Your task to perform on an android device: Go to display settings Image 0: 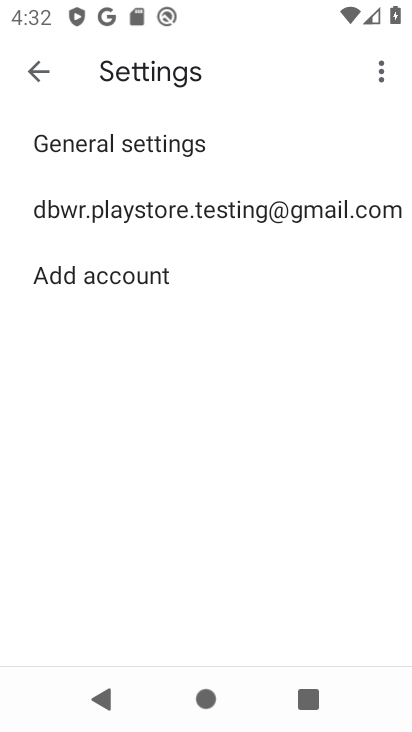
Step 0: press home button
Your task to perform on an android device: Go to display settings Image 1: 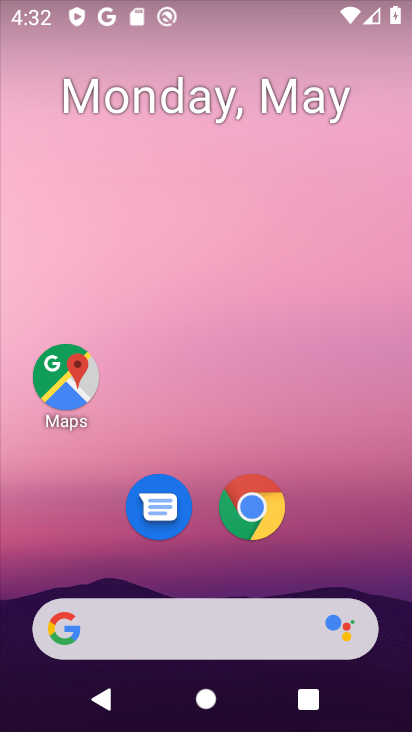
Step 1: drag from (309, 501) to (402, 11)
Your task to perform on an android device: Go to display settings Image 2: 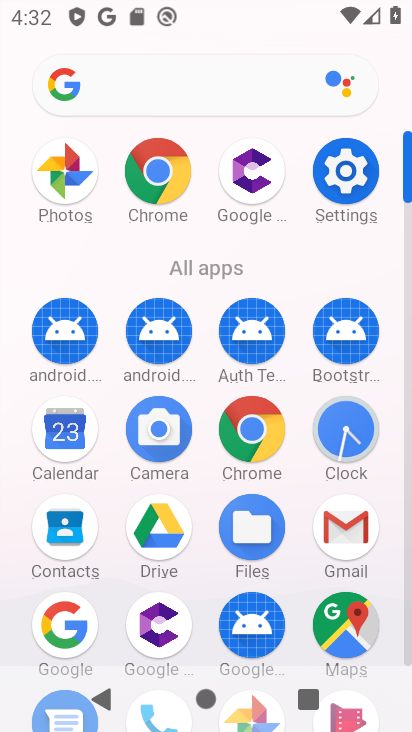
Step 2: click (341, 174)
Your task to perform on an android device: Go to display settings Image 3: 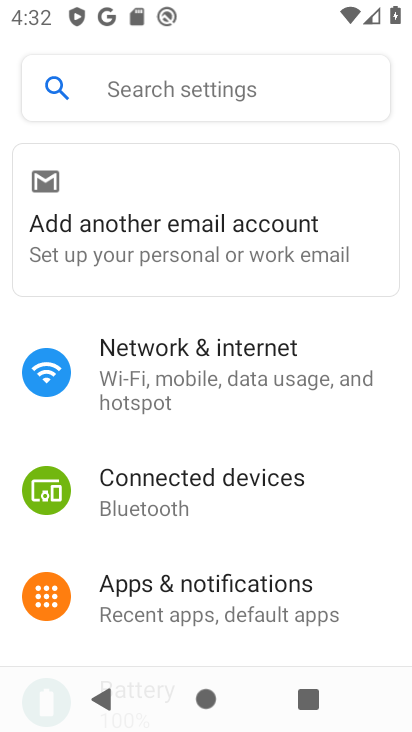
Step 3: drag from (256, 615) to (364, 116)
Your task to perform on an android device: Go to display settings Image 4: 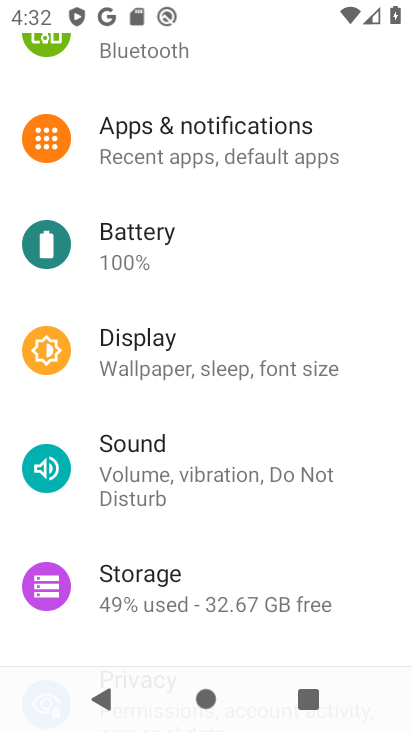
Step 4: click (187, 349)
Your task to perform on an android device: Go to display settings Image 5: 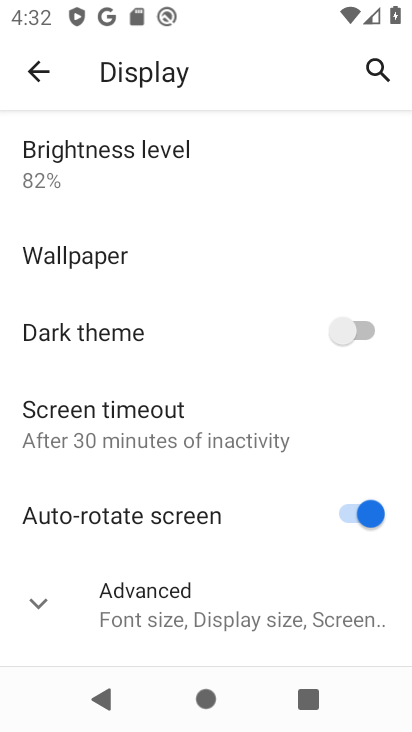
Step 5: task complete